Your task to perform on an android device: add a contact in the contacts app Image 0: 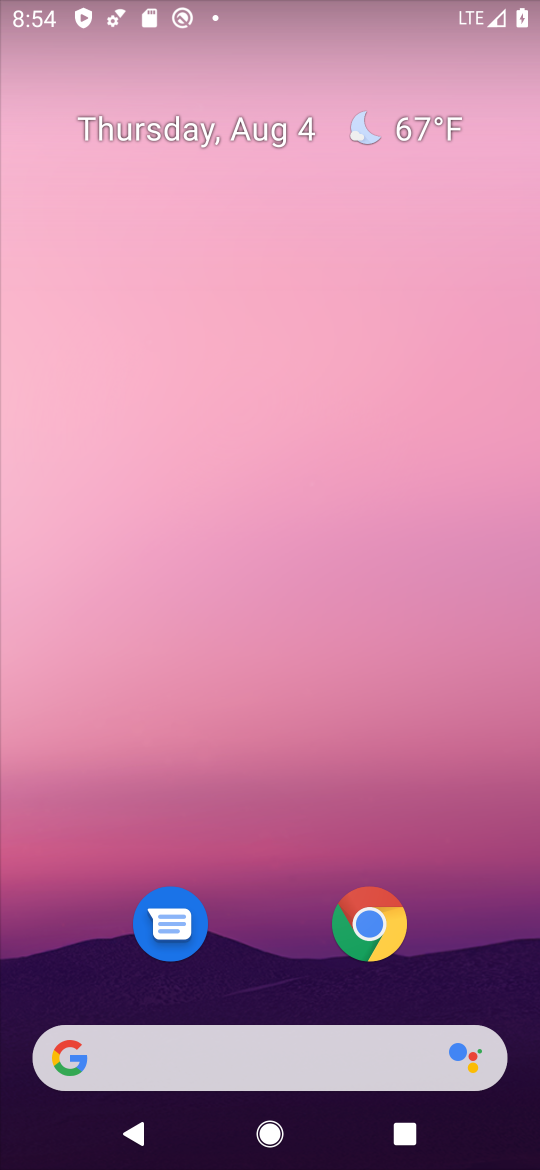
Step 0: click (259, 69)
Your task to perform on an android device: add a contact in the contacts app Image 1: 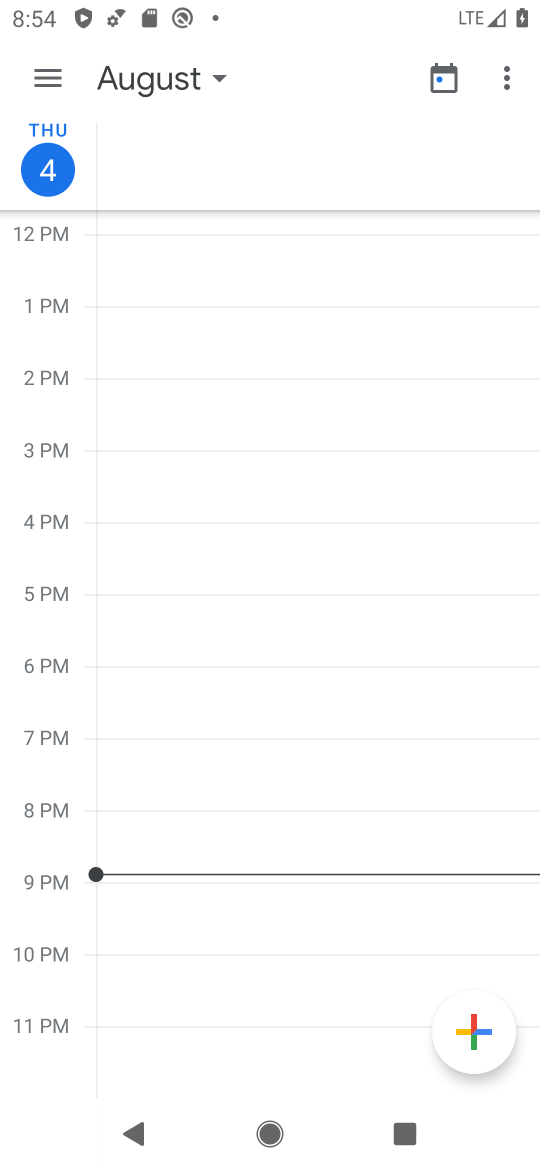
Step 1: drag from (290, 999) to (203, 437)
Your task to perform on an android device: add a contact in the contacts app Image 2: 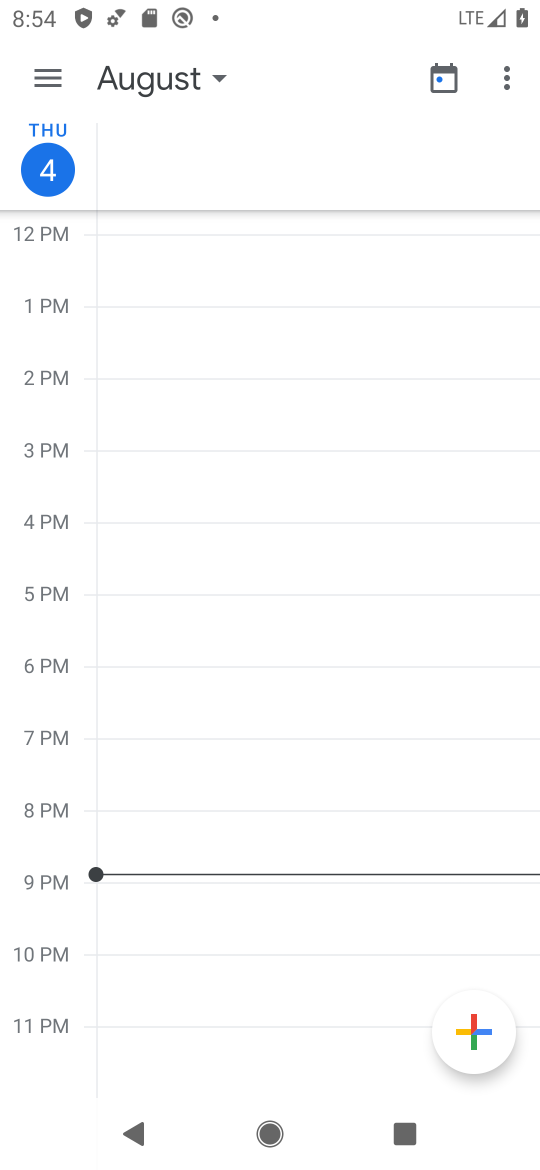
Step 2: press back button
Your task to perform on an android device: add a contact in the contacts app Image 3: 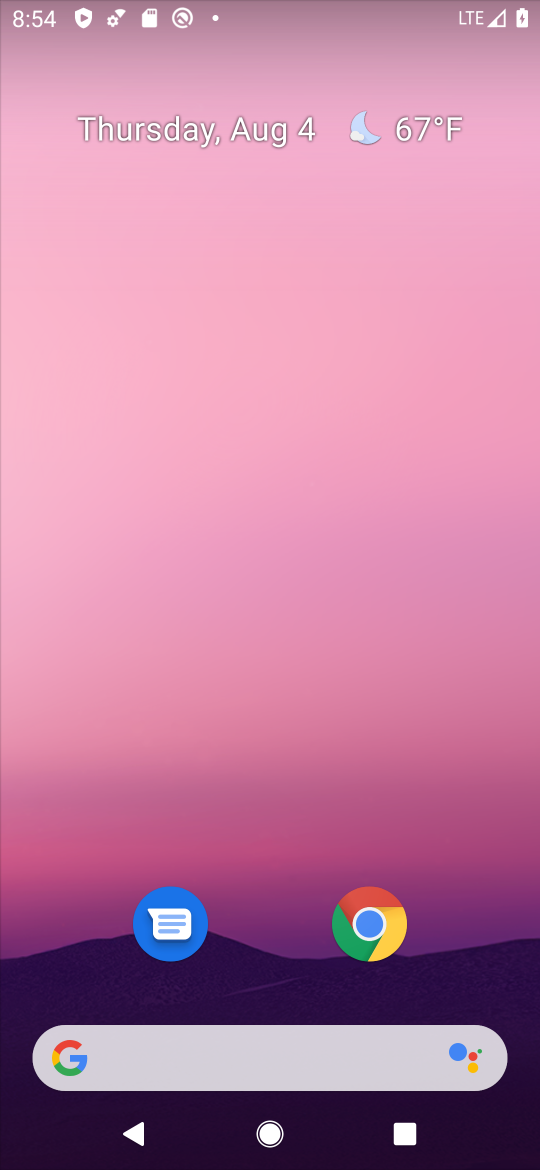
Step 3: drag from (270, 1016) to (268, 139)
Your task to perform on an android device: add a contact in the contacts app Image 4: 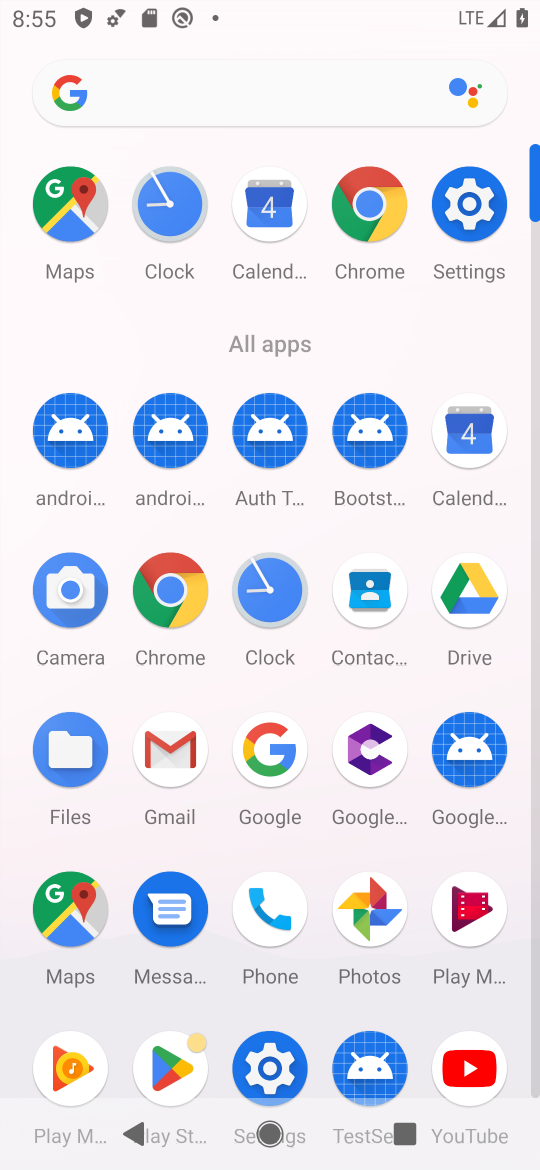
Step 4: click (284, 918)
Your task to perform on an android device: add a contact in the contacts app Image 5: 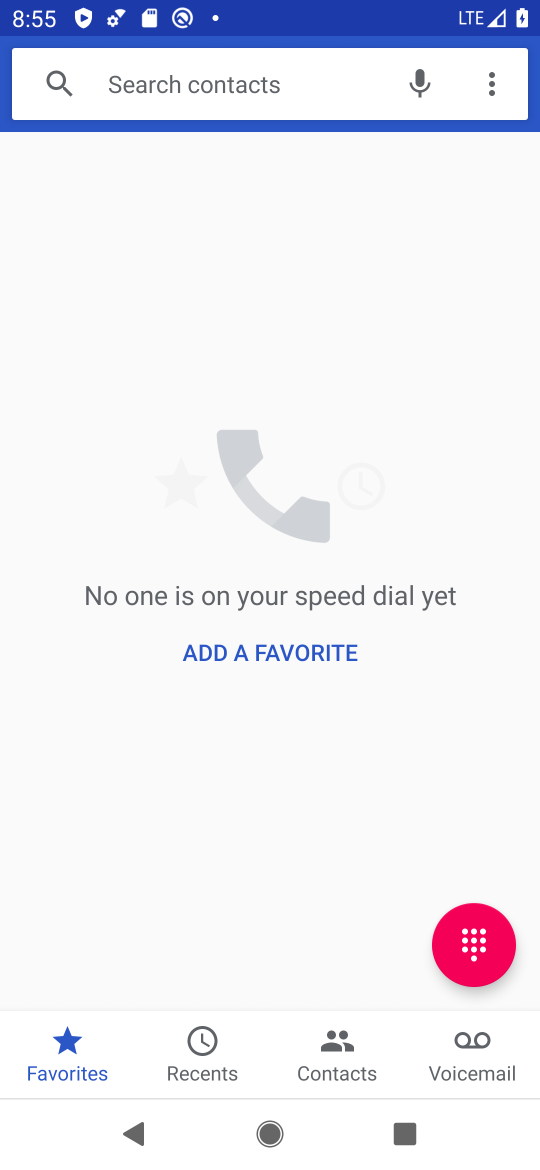
Step 5: click (352, 1036)
Your task to perform on an android device: add a contact in the contacts app Image 6: 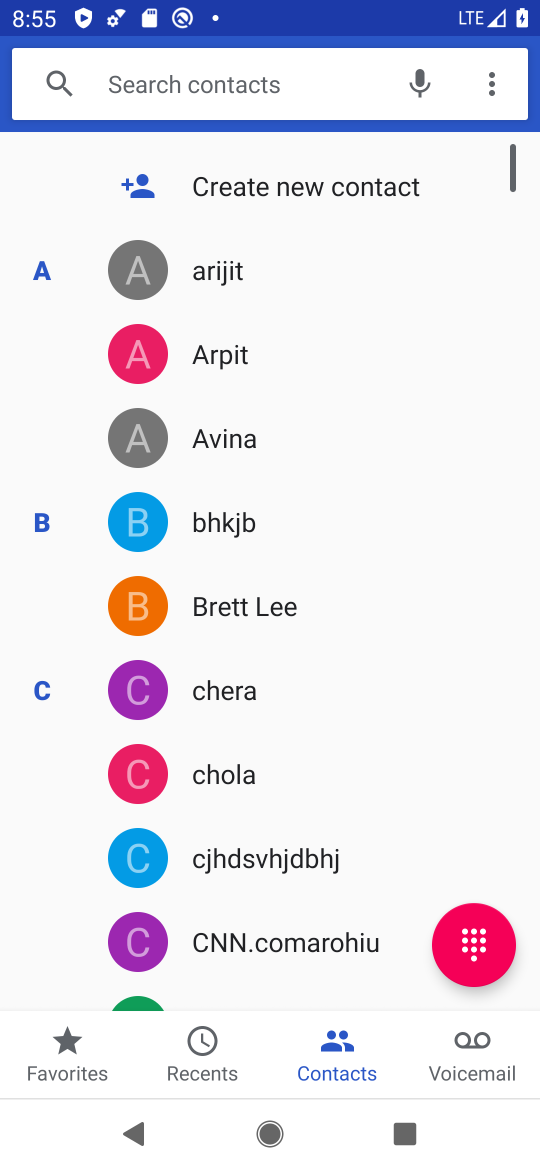
Step 6: click (250, 189)
Your task to perform on an android device: add a contact in the contacts app Image 7: 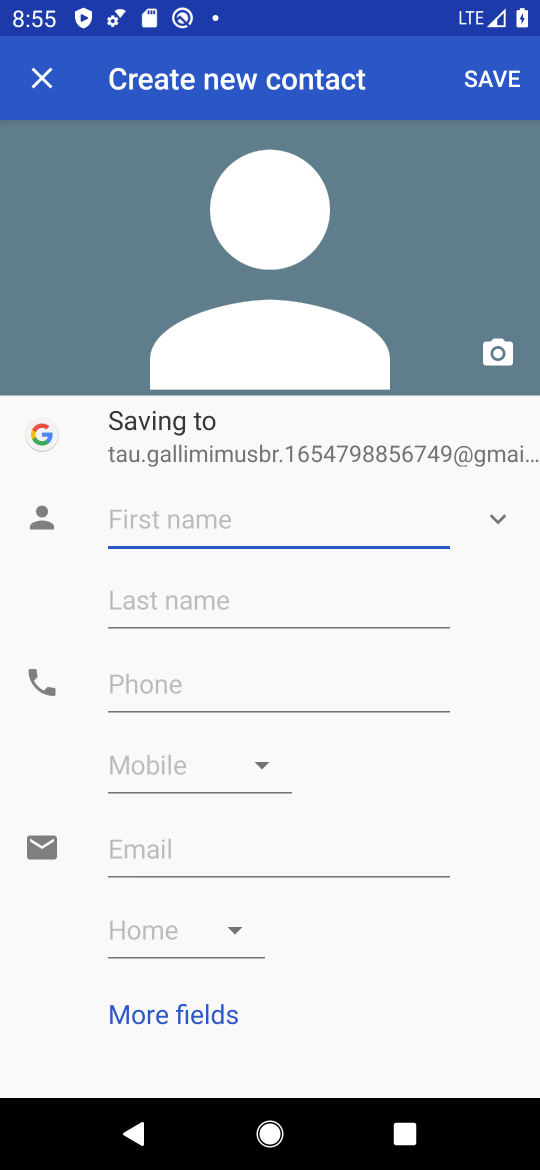
Step 7: type "app"
Your task to perform on an android device: add a contact in the contacts app Image 8: 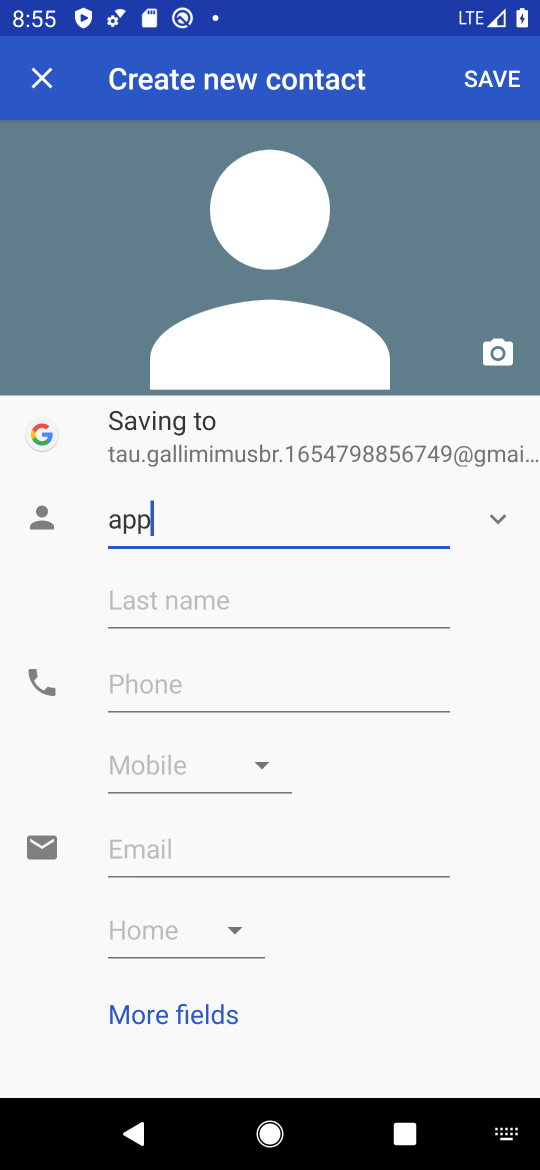
Step 8: type ""
Your task to perform on an android device: add a contact in the contacts app Image 9: 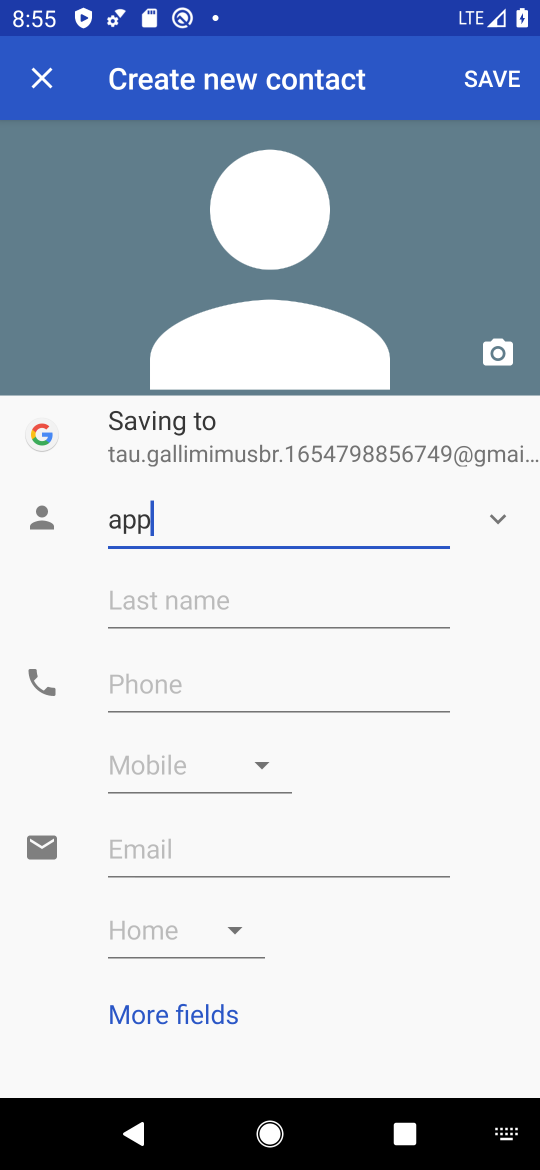
Step 9: click (212, 691)
Your task to perform on an android device: add a contact in the contacts app Image 10: 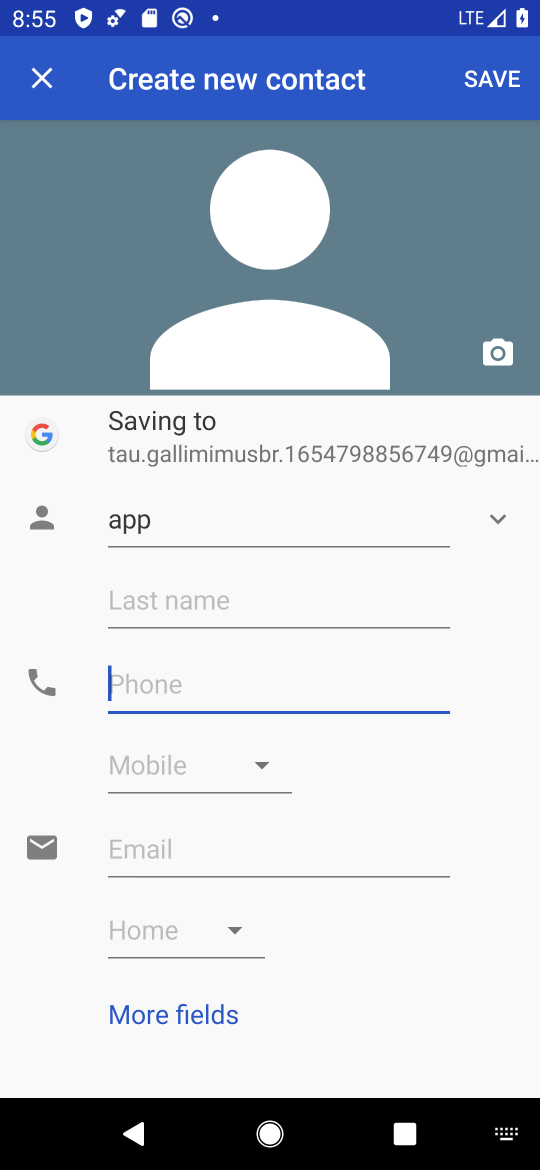
Step 10: click (490, 77)
Your task to perform on an android device: add a contact in the contacts app Image 11: 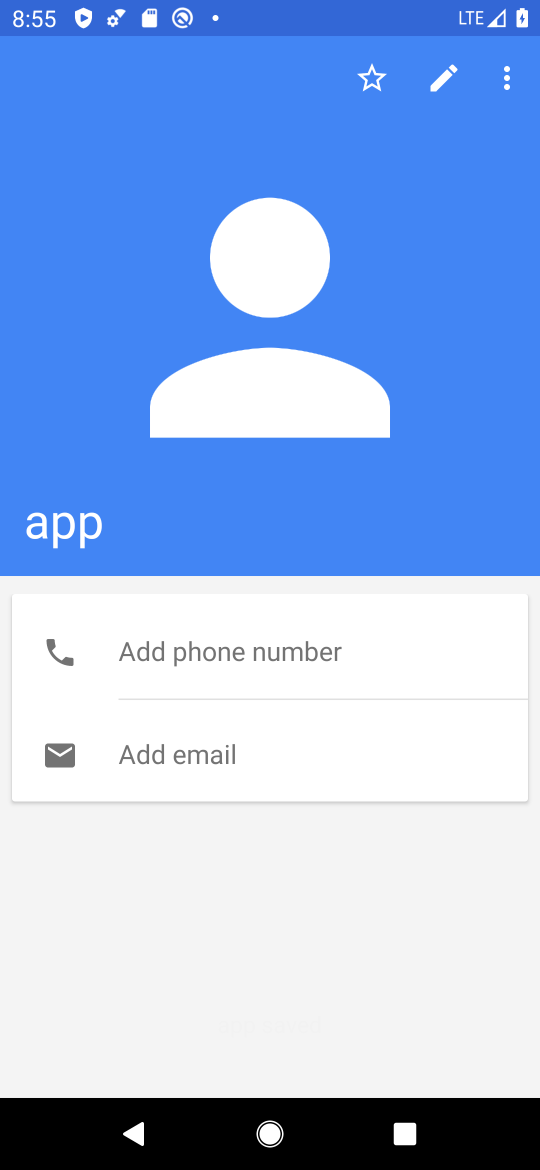
Step 11: task complete